Your task to perform on an android device: Open settings Image 0: 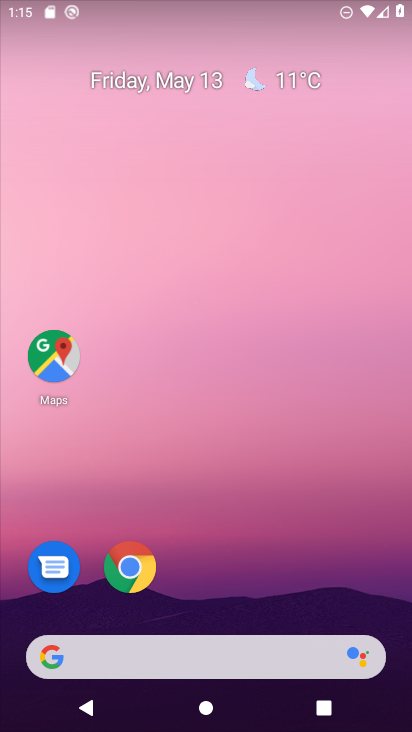
Step 0: drag from (208, 441) to (207, 60)
Your task to perform on an android device: Open settings Image 1: 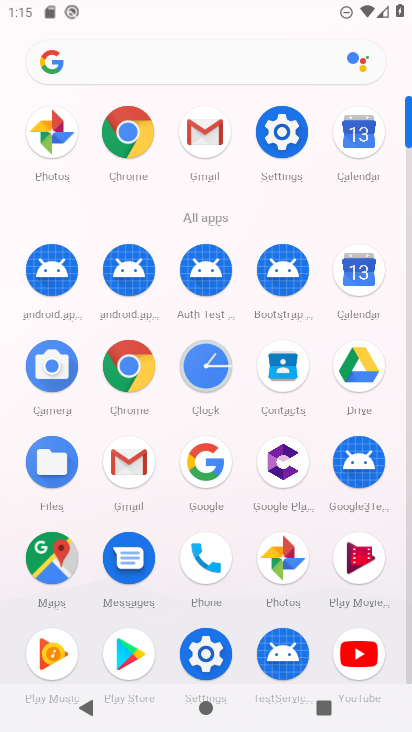
Step 1: click (209, 647)
Your task to perform on an android device: Open settings Image 2: 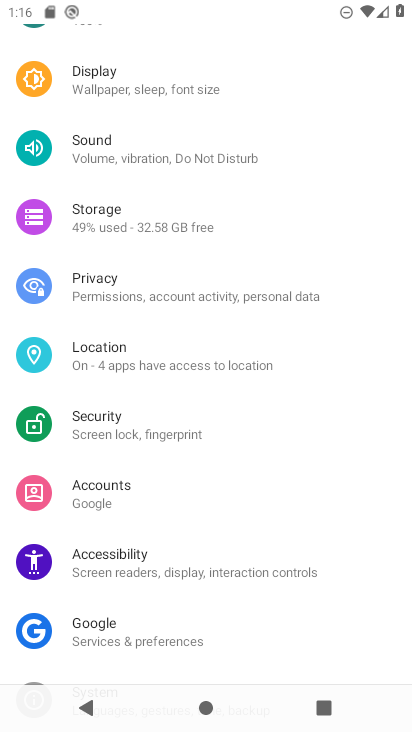
Step 2: task complete